Your task to perform on an android device: Open notification settings Image 0: 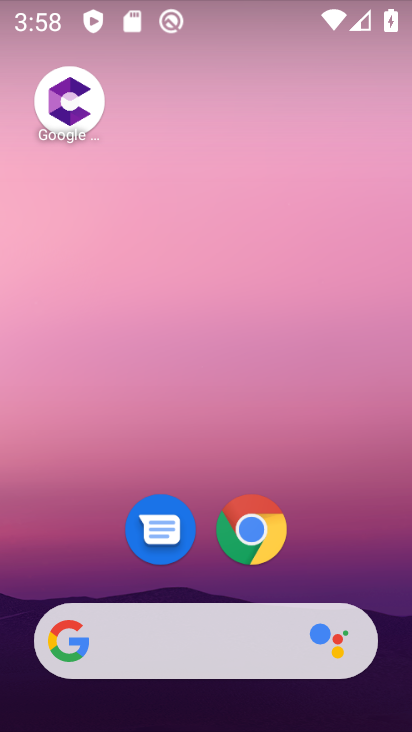
Step 0: drag from (320, 538) to (246, 74)
Your task to perform on an android device: Open notification settings Image 1: 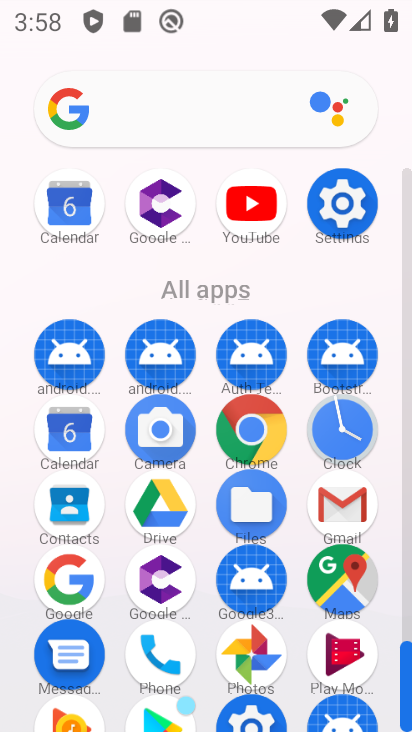
Step 1: click (341, 202)
Your task to perform on an android device: Open notification settings Image 2: 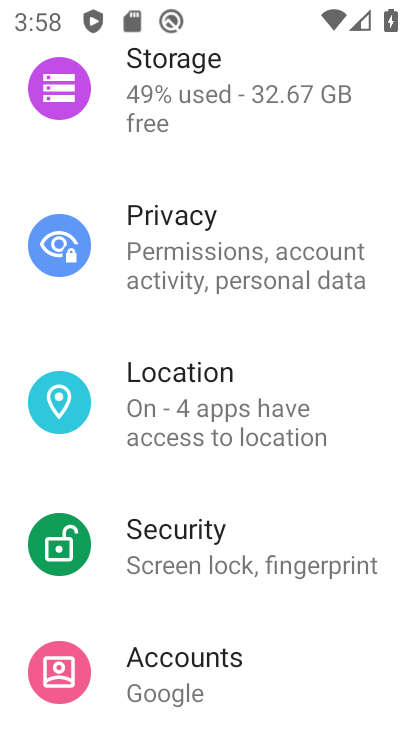
Step 2: drag from (237, 195) to (311, 621)
Your task to perform on an android device: Open notification settings Image 3: 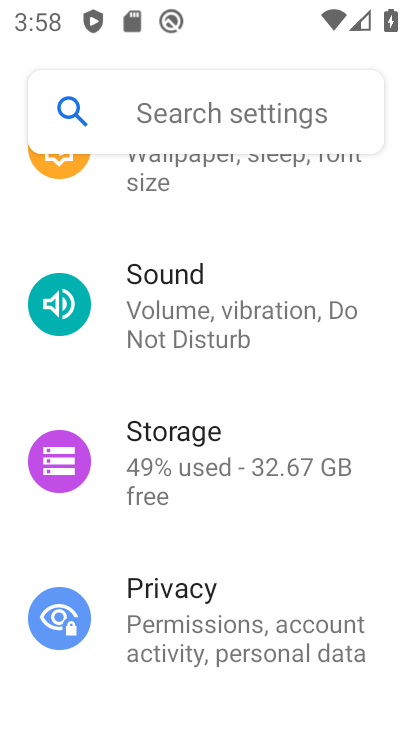
Step 3: drag from (279, 222) to (335, 521)
Your task to perform on an android device: Open notification settings Image 4: 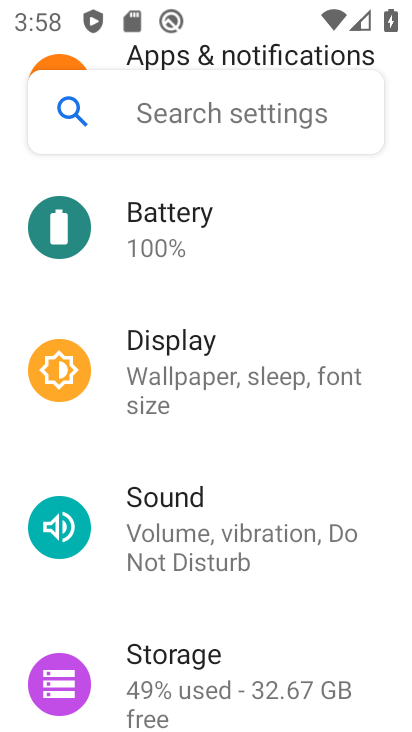
Step 4: drag from (315, 282) to (322, 556)
Your task to perform on an android device: Open notification settings Image 5: 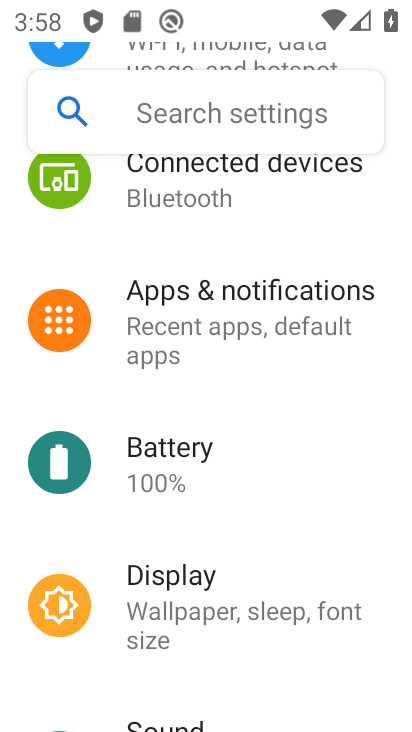
Step 5: click (268, 314)
Your task to perform on an android device: Open notification settings Image 6: 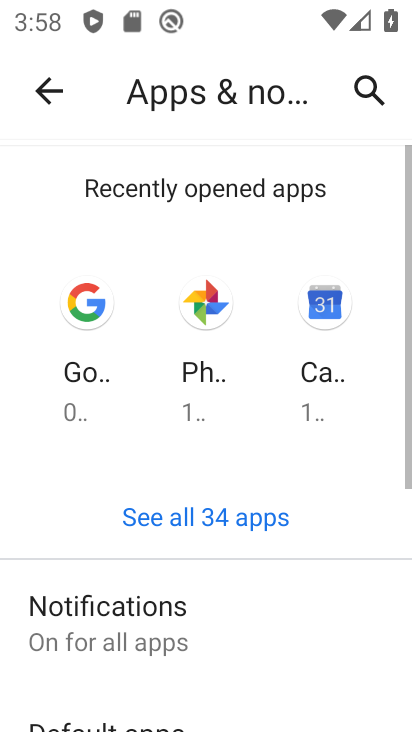
Step 6: click (122, 604)
Your task to perform on an android device: Open notification settings Image 7: 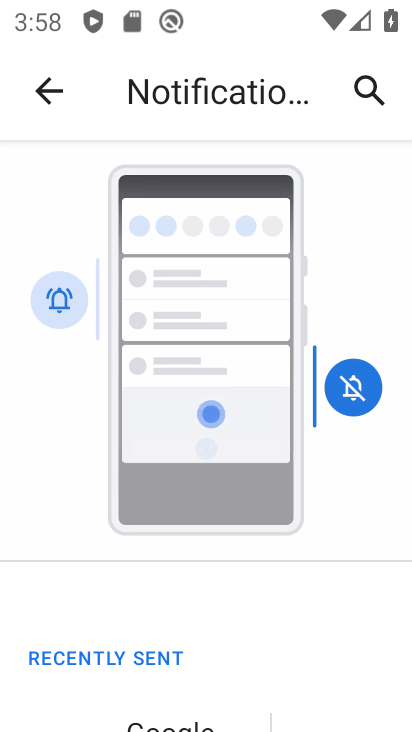
Step 7: task complete